Your task to perform on an android device: Open Wikipedia Image 0: 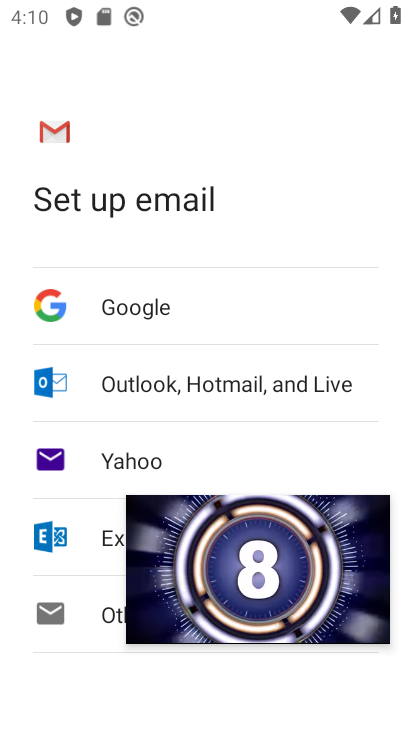
Step 0: click (374, 513)
Your task to perform on an android device: Open Wikipedia Image 1: 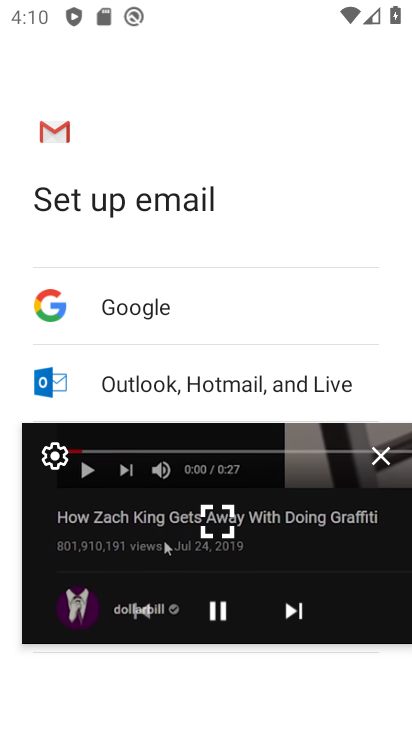
Step 1: click (385, 454)
Your task to perform on an android device: Open Wikipedia Image 2: 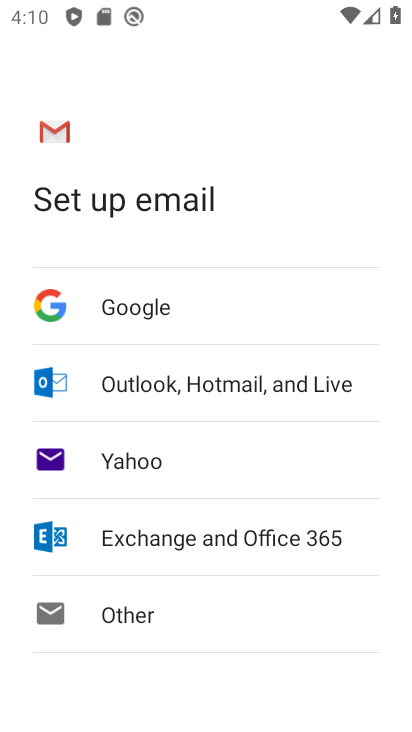
Step 2: press home button
Your task to perform on an android device: Open Wikipedia Image 3: 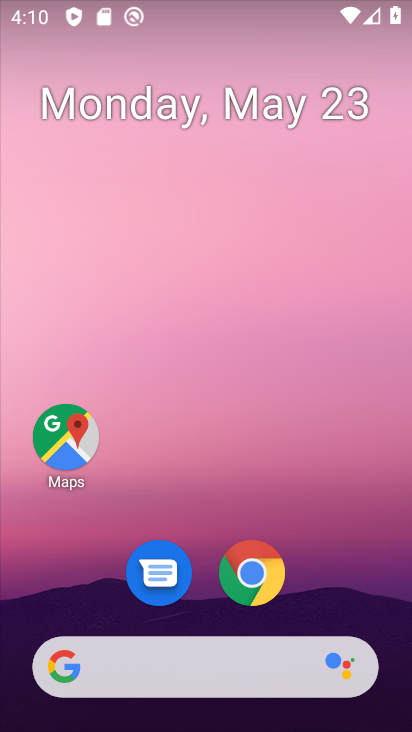
Step 3: click (253, 585)
Your task to perform on an android device: Open Wikipedia Image 4: 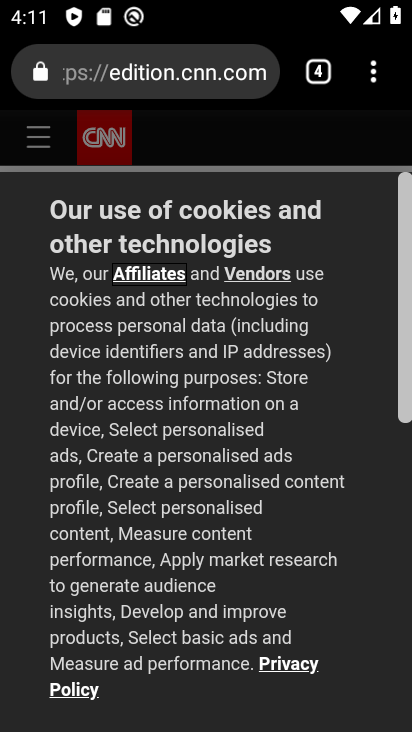
Step 4: click (376, 81)
Your task to perform on an android device: Open Wikipedia Image 5: 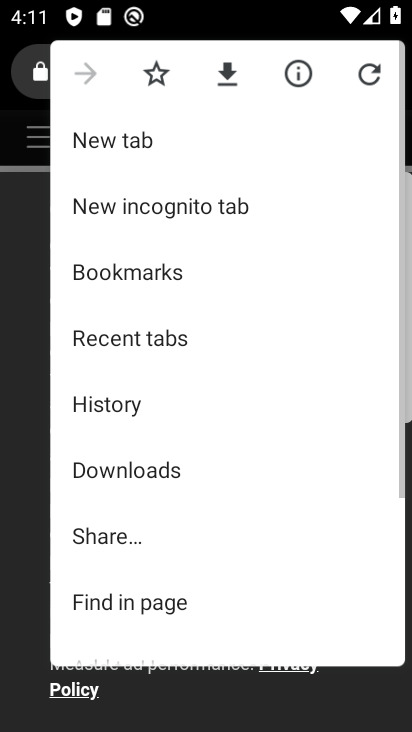
Step 5: click (127, 136)
Your task to perform on an android device: Open Wikipedia Image 6: 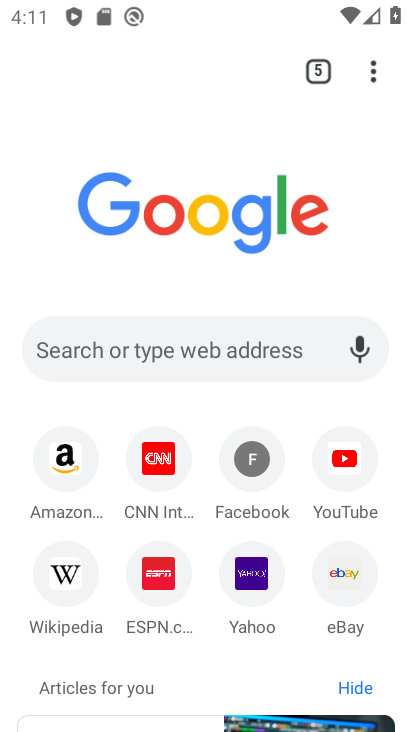
Step 6: click (64, 582)
Your task to perform on an android device: Open Wikipedia Image 7: 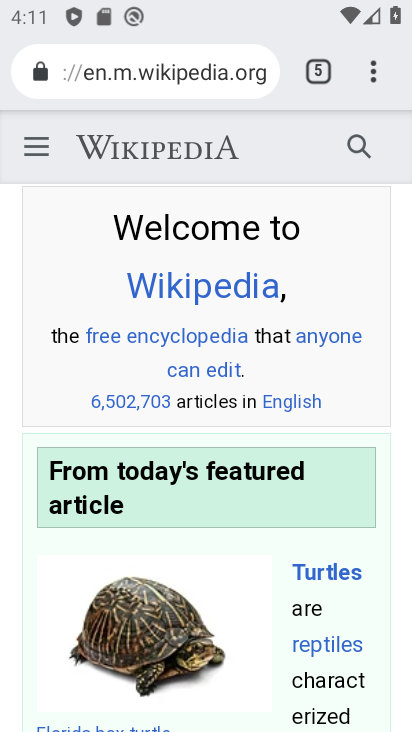
Step 7: task complete